Your task to perform on an android device: Play the last video I watched on Youtube Image 0: 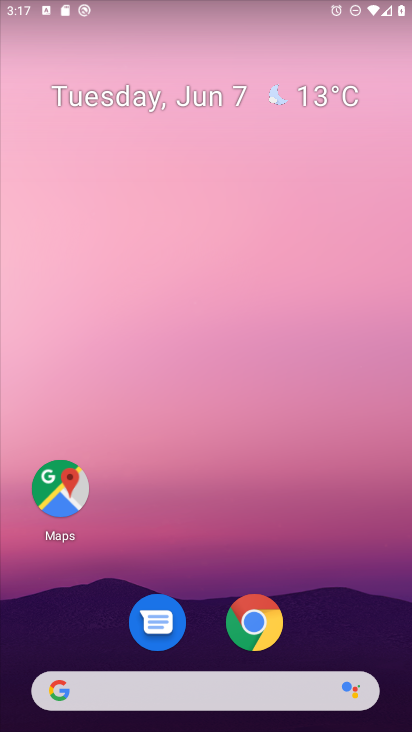
Step 0: drag from (340, 614) to (246, 38)
Your task to perform on an android device: Play the last video I watched on Youtube Image 1: 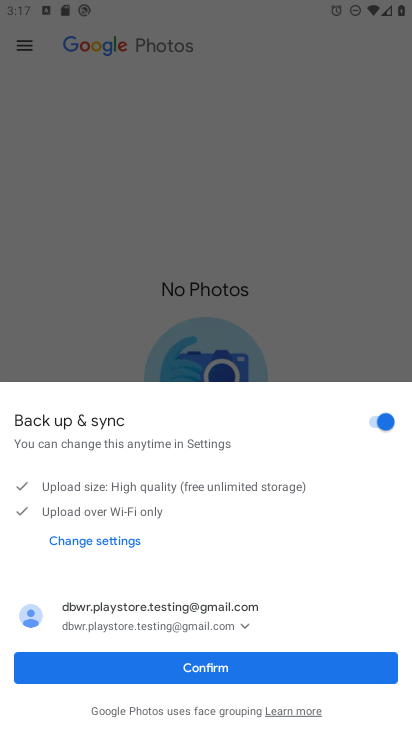
Step 1: press home button
Your task to perform on an android device: Play the last video I watched on Youtube Image 2: 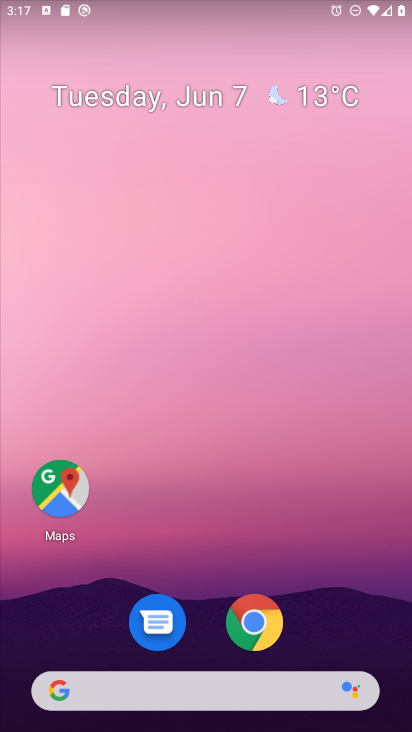
Step 2: drag from (309, 547) to (233, 44)
Your task to perform on an android device: Play the last video I watched on Youtube Image 3: 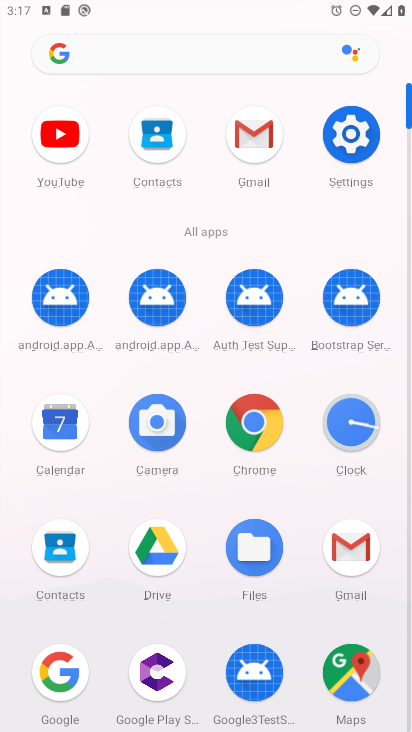
Step 3: click (60, 141)
Your task to perform on an android device: Play the last video I watched on Youtube Image 4: 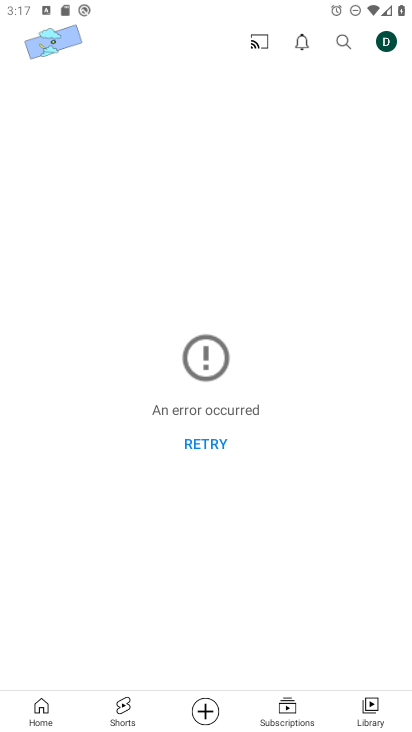
Step 4: click (373, 711)
Your task to perform on an android device: Play the last video I watched on Youtube Image 5: 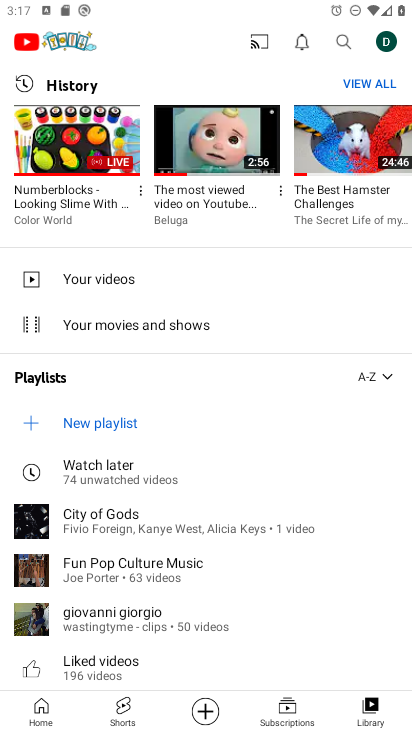
Step 5: click (71, 147)
Your task to perform on an android device: Play the last video I watched on Youtube Image 6: 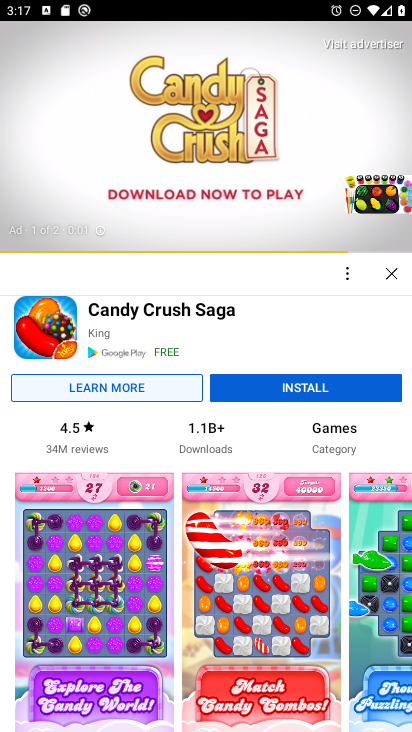
Step 6: task complete